Your task to perform on an android device: turn off translation in the chrome app Image 0: 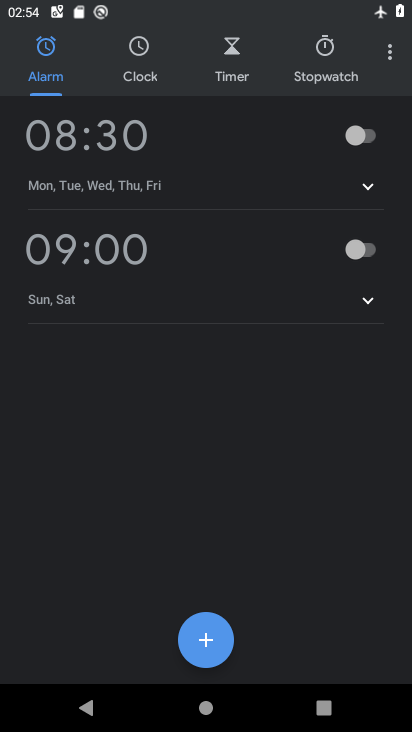
Step 0: press home button
Your task to perform on an android device: turn off translation in the chrome app Image 1: 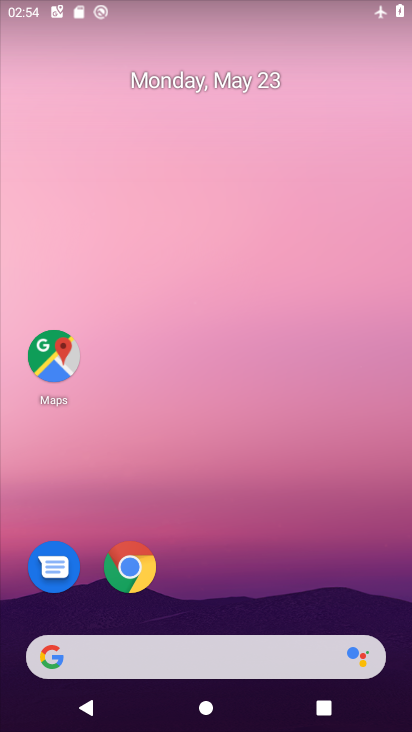
Step 1: drag from (254, 503) to (256, 175)
Your task to perform on an android device: turn off translation in the chrome app Image 2: 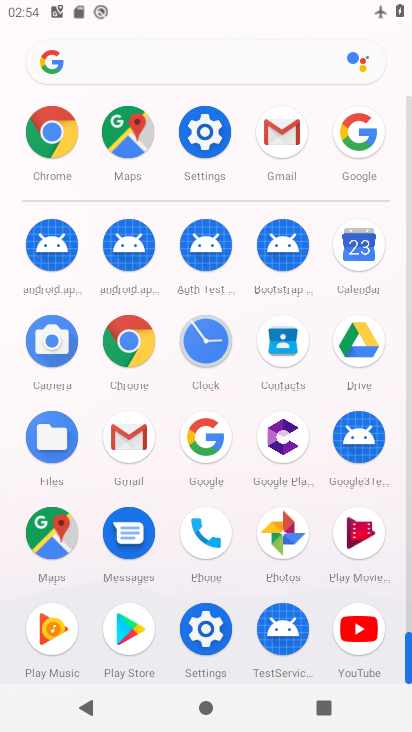
Step 2: click (122, 348)
Your task to perform on an android device: turn off translation in the chrome app Image 3: 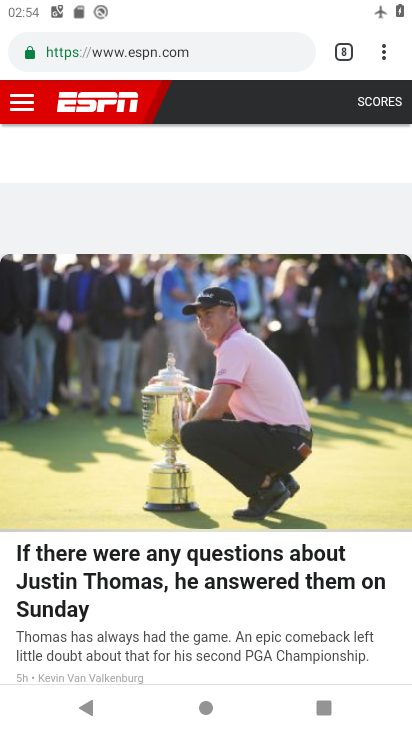
Step 3: click (378, 53)
Your task to perform on an android device: turn off translation in the chrome app Image 4: 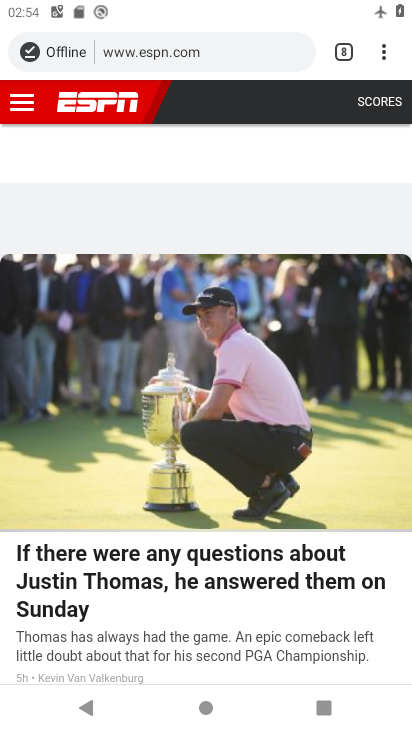
Step 4: click (379, 57)
Your task to perform on an android device: turn off translation in the chrome app Image 5: 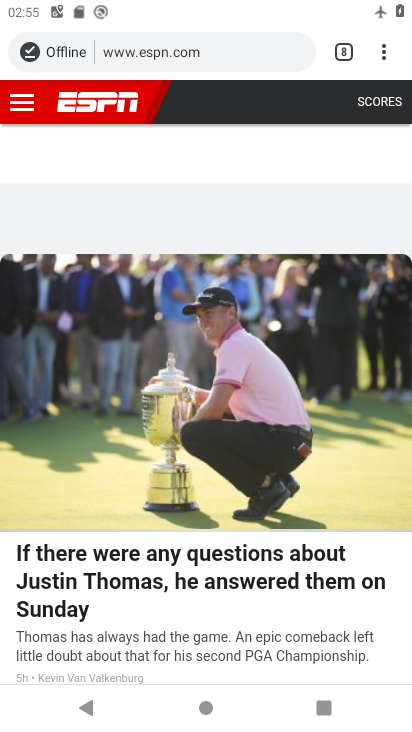
Step 5: click (389, 51)
Your task to perform on an android device: turn off translation in the chrome app Image 6: 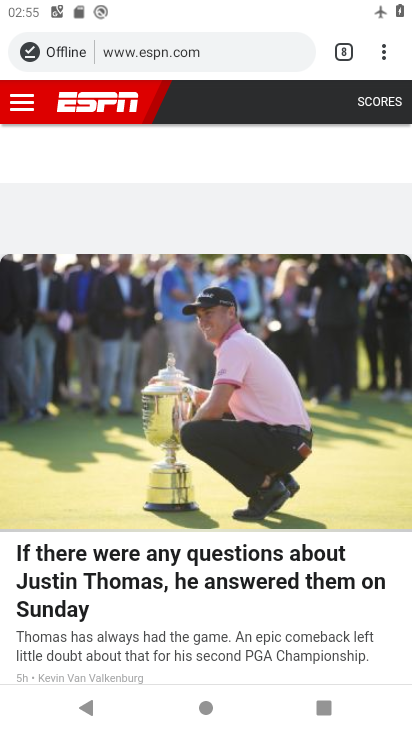
Step 6: click (382, 57)
Your task to perform on an android device: turn off translation in the chrome app Image 7: 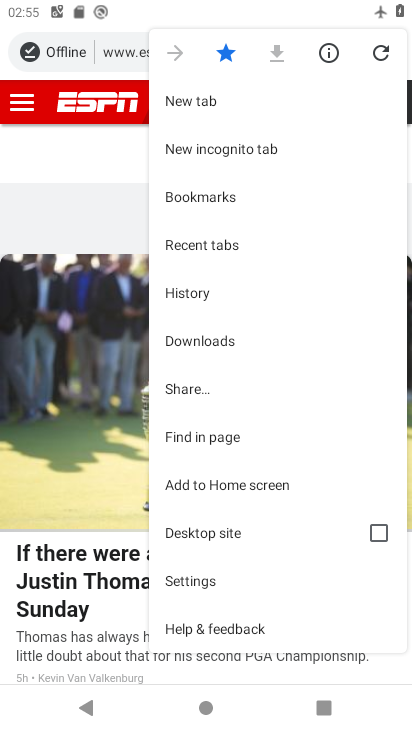
Step 7: click (220, 590)
Your task to perform on an android device: turn off translation in the chrome app Image 8: 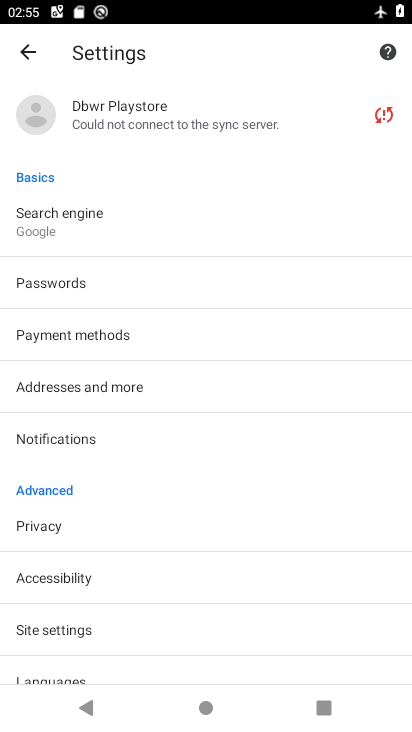
Step 8: drag from (126, 540) to (188, 245)
Your task to perform on an android device: turn off translation in the chrome app Image 9: 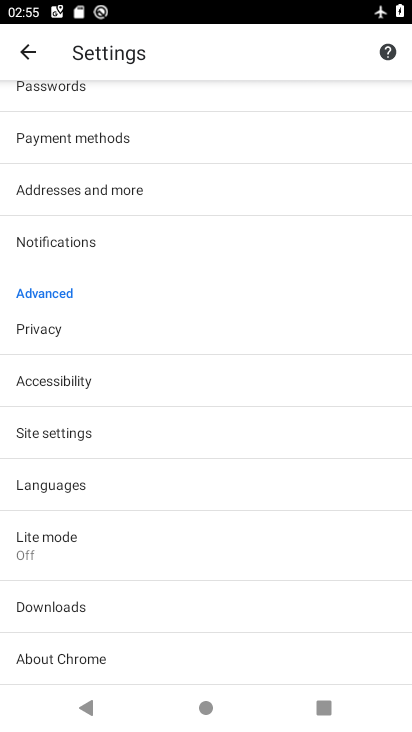
Step 9: click (92, 493)
Your task to perform on an android device: turn off translation in the chrome app Image 10: 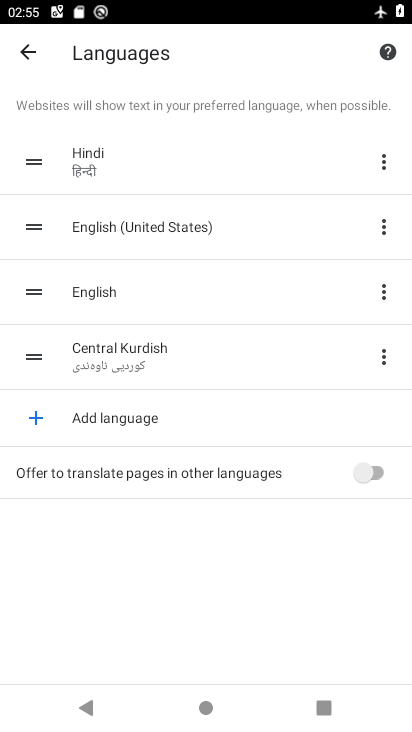
Step 10: task complete